Your task to perform on an android device: toggle improve location accuracy Image 0: 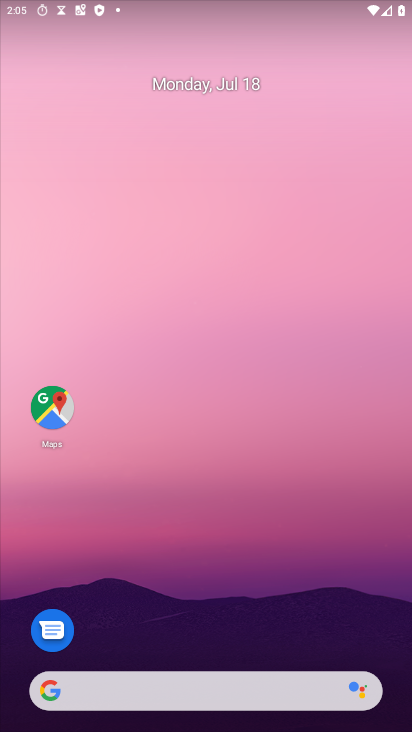
Step 0: drag from (317, 693) to (271, 76)
Your task to perform on an android device: toggle improve location accuracy Image 1: 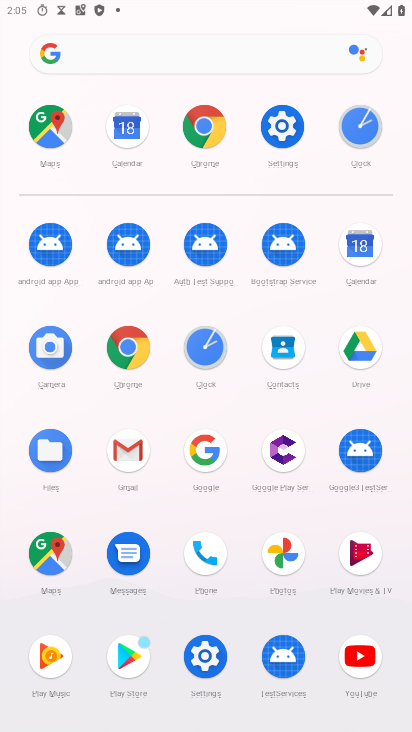
Step 1: click (286, 127)
Your task to perform on an android device: toggle improve location accuracy Image 2: 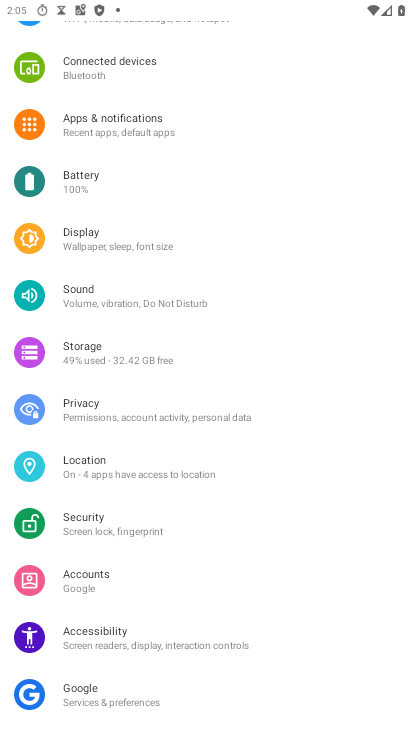
Step 2: click (116, 464)
Your task to perform on an android device: toggle improve location accuracy Image 3: 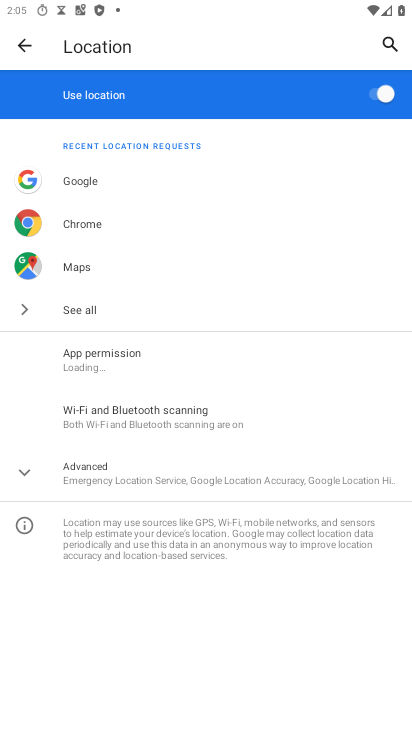
Step 3: click (185, 475)
Your task to perform on an android device: toggle improve location accuracy Image 4: 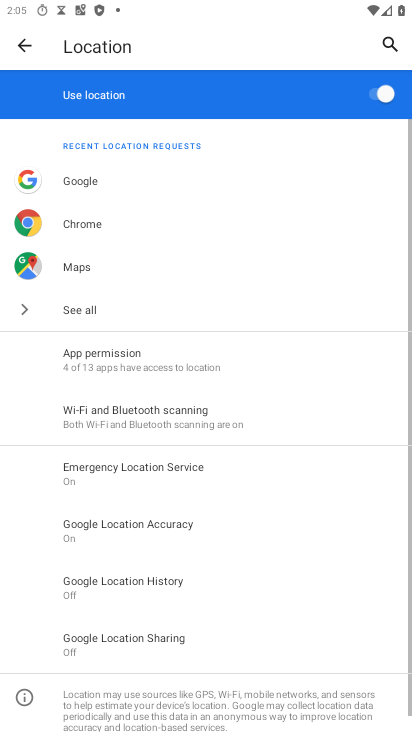
Step 4: click (180, 526)
Your task to perform on an android device: toggle improve location accuracy Image 5: 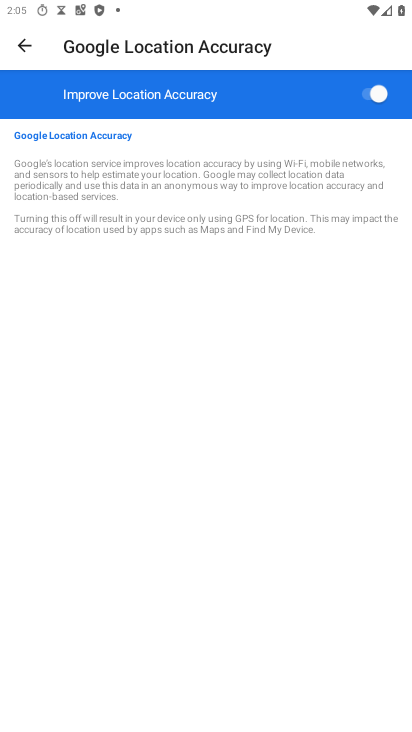
Step 5: click (375, 92)
Your task to perform on an android device: toggle improve location accuracy Image 6: 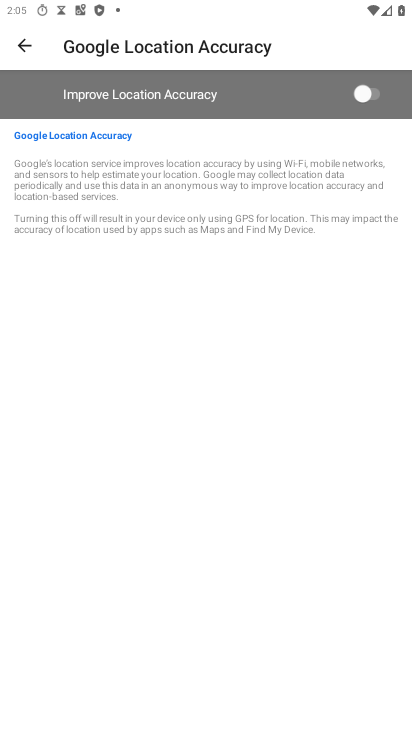
Step 6: task complete